Your task to perform on an android device: Open CNN.com Image 0: 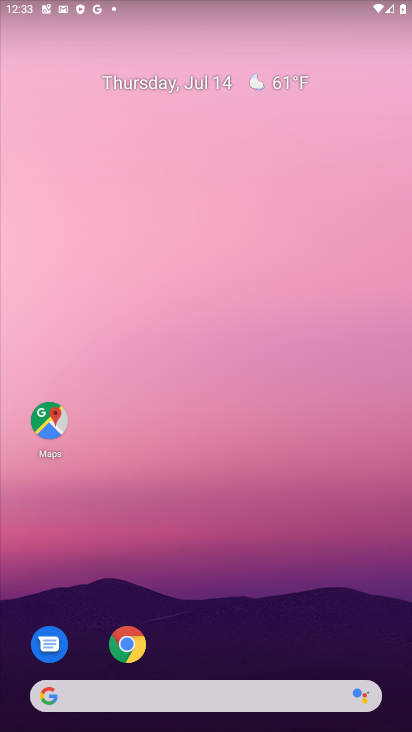
Step 0: click (126, 646)
Your task to perform on an android device: Open CNN.com Image 1: 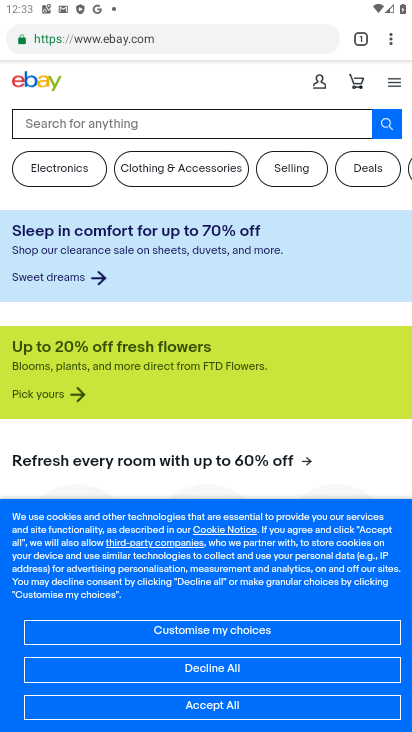
Step 1: click (168, 37)
Your task to perform on an android device: Open CNN.com Image 2: 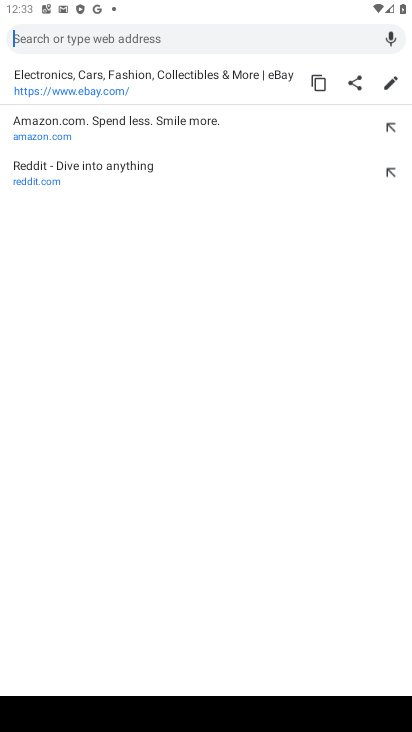
Step 2: type "CNN.com"
Your task to perform on an android device: Open CNN.com Image 3: 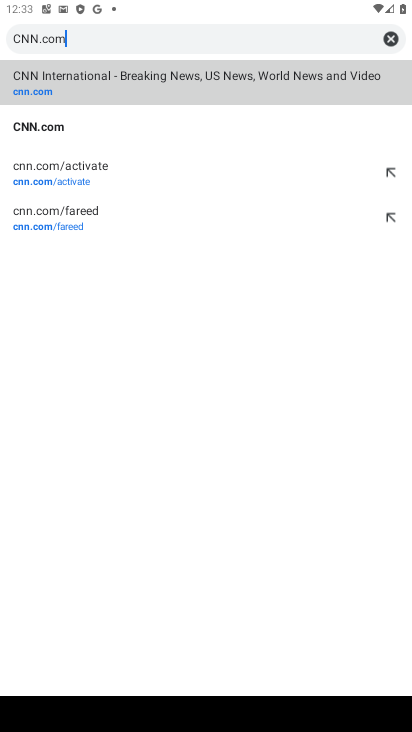
Step 3: click (157, 88)
Your task to perform on an android device: Open CNN.com Image 4: 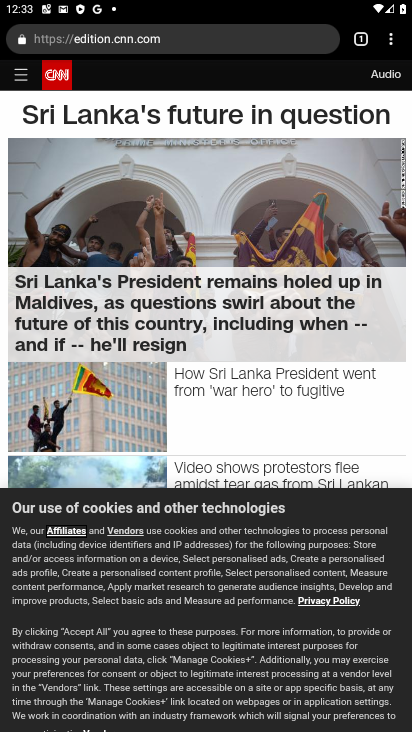
Step 4: task complete